Your task to perform on an android device: toggle improve location accuracy Image 0: 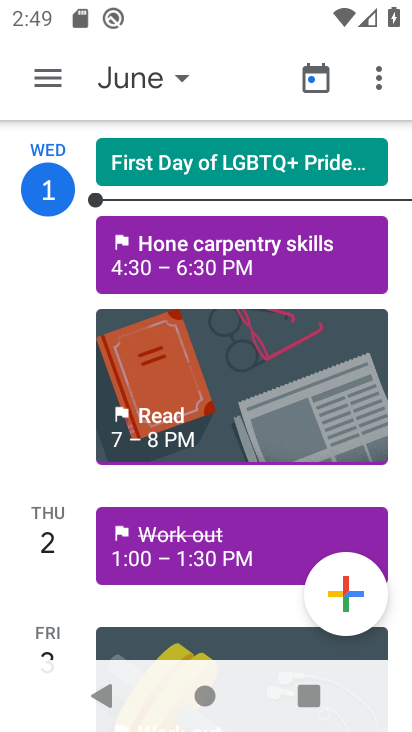
Step 0: press home button
Your task to perform on an android device: toggle improve location accuracy Image 1: 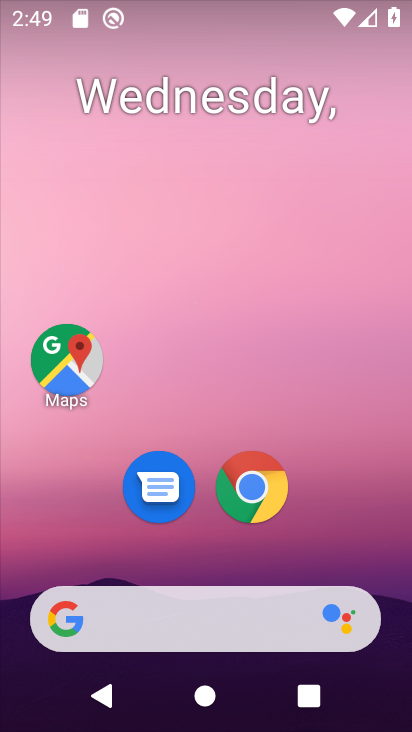
Step 1: click (66, 363)
Your task to perform on an android device: toggle improve location accuracy Image 2: 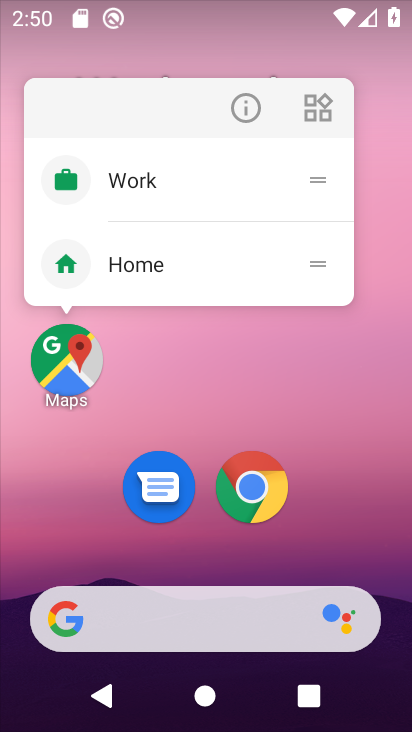
Step 2: press home button
Your task to perform on an android device: toggle improve location accuracy Image 3: 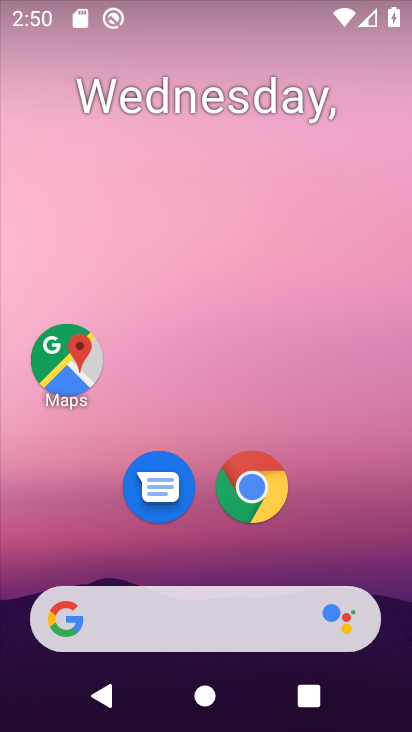
Step 3: click (57, 365)
Your task to perform on an android device: toggle improve location accuracy Image 4: 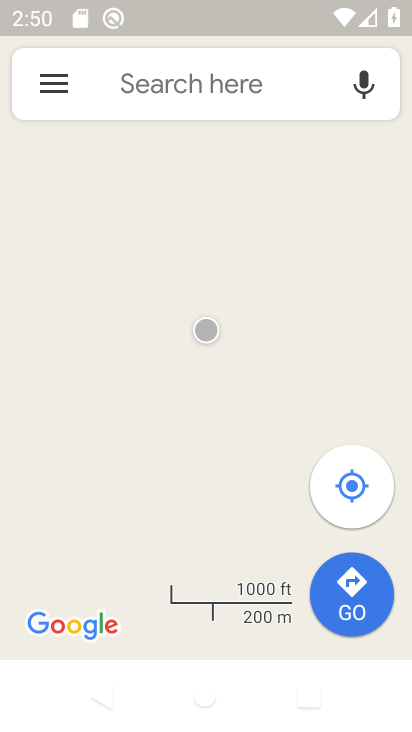
Step 4: click (45, 81)
Your task to perform on an android device: toggle improve location accuracy Image 5: 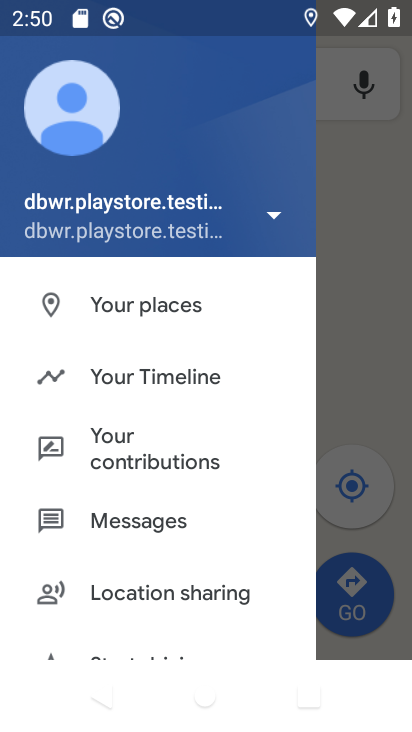
Step 5: drag from (207, 579) to (223, 30)
Your task to perform on an android device: toggle improve location accuracy Image 6: 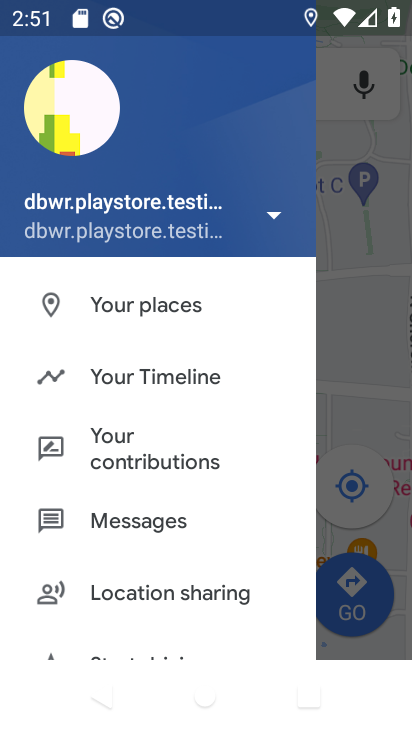
Step 6: drag from (196, 613) to (225, 86)
Your task to perform on an android device: toggle improve location accuracy Image 7: 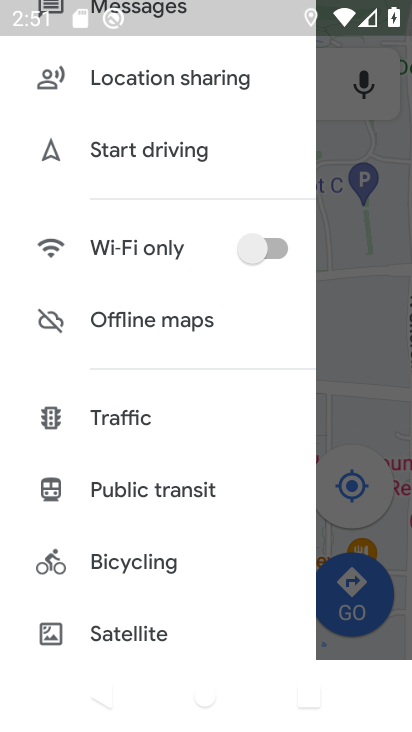
Step 7: drag from (165, 637) to (202, 25)
Your task to perform on an android device: toggle improve location accuracy Image 8: 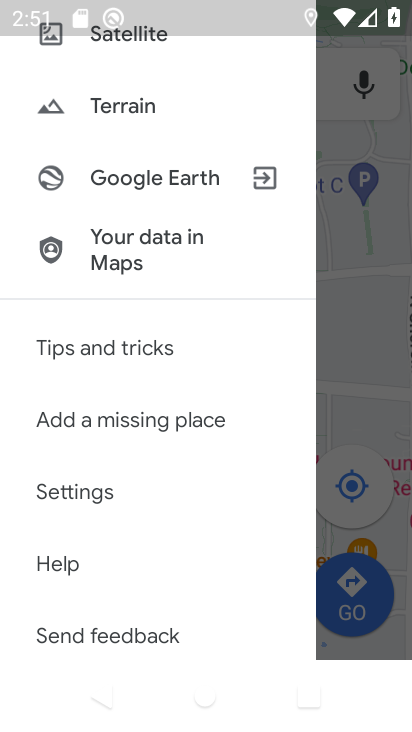
Step 8: click (114, 495)
Your task to perform on an android device: toggle improve location accuracy Image 9: 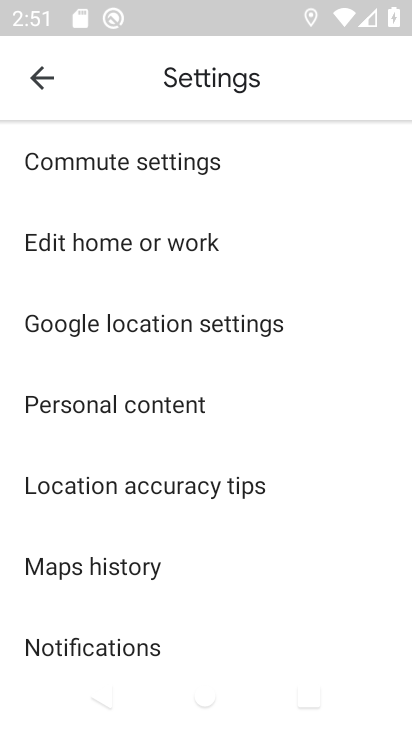
Step 9: click (162, 325)
Your task to perform on an android device: toggle improve location accuracy Image 10: 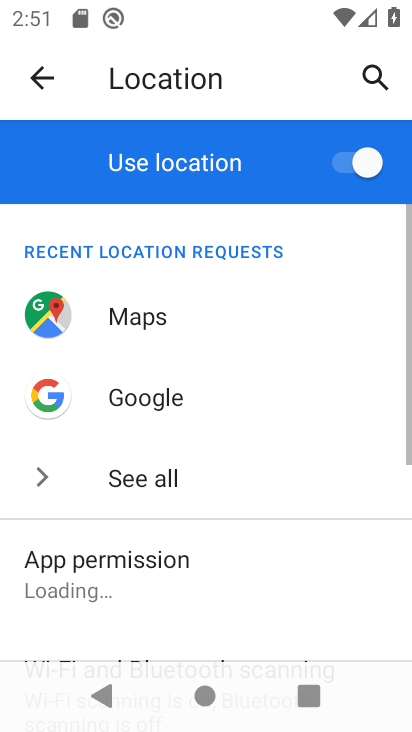
Step 10: drag from (270, 611) to (277, 92)
Your task to perform on an android device: toggle improve location accuracy Image 11: 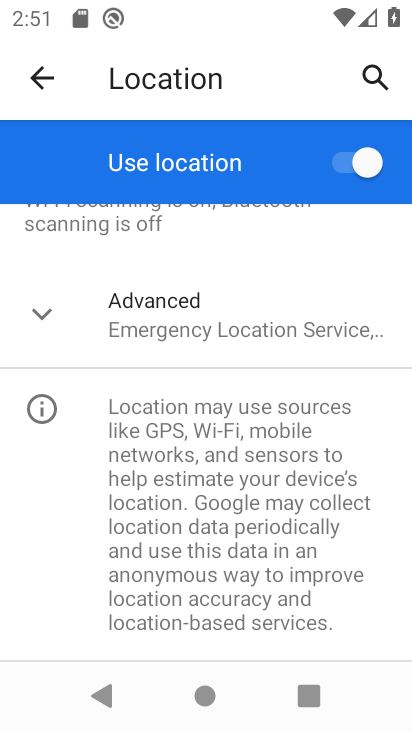
Step 11: click (345, 328)
Your task to perform on an android device: toggle improve location accuracy Image 12: 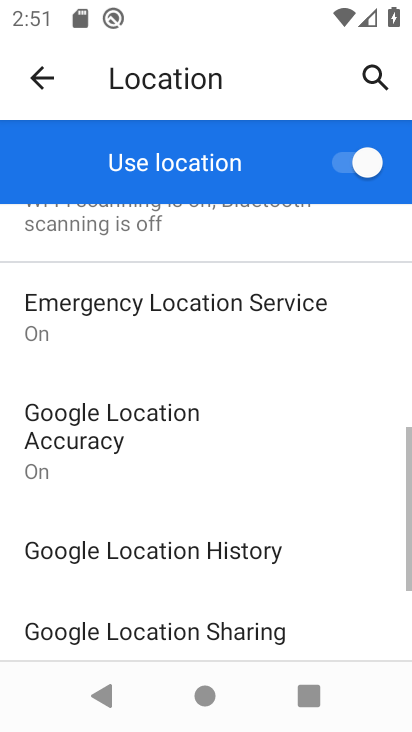
Step 12: drag from (257, 595) to (297, 58)
Your task to perform on an android device: toggle improve location accuracy Image 13: 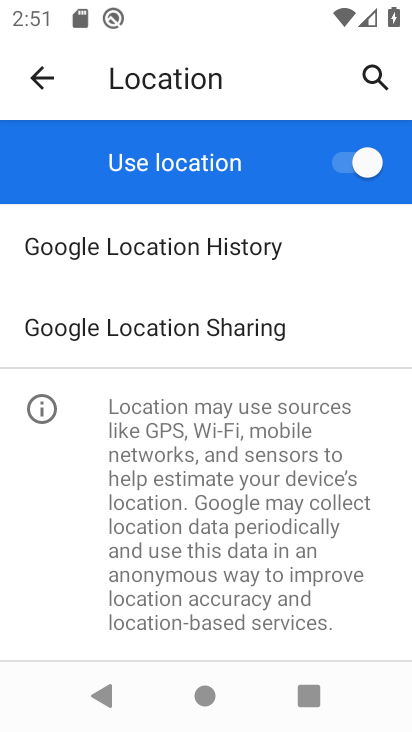
Step 13: drag from (354, 265) to (346, 606)
Your task to perform on an android device: toggle improve location accuracy Image 14: 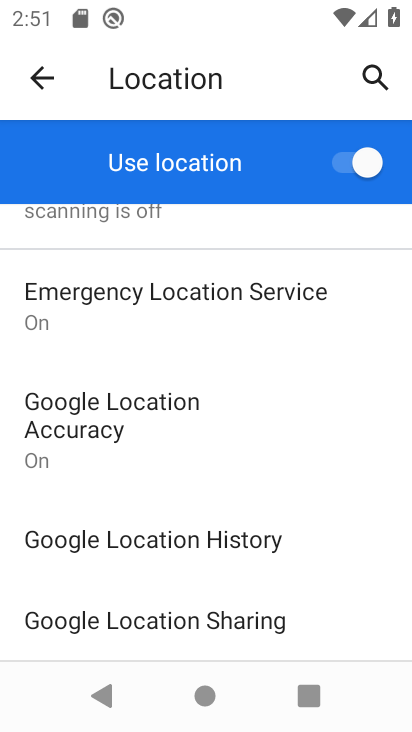
Step 14: click (101, 417)
Your task to perform on an android device: toggle improve location accuracy Image 15: 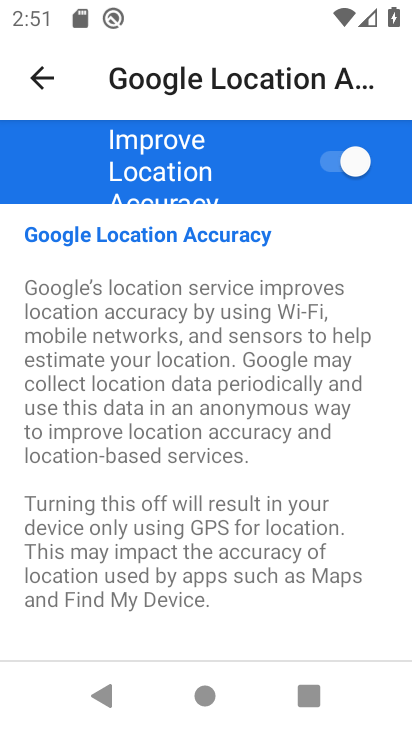
Step 15: click (345, 160)
Your task to perform on an android device: toggle improve location accuracy Image 16: 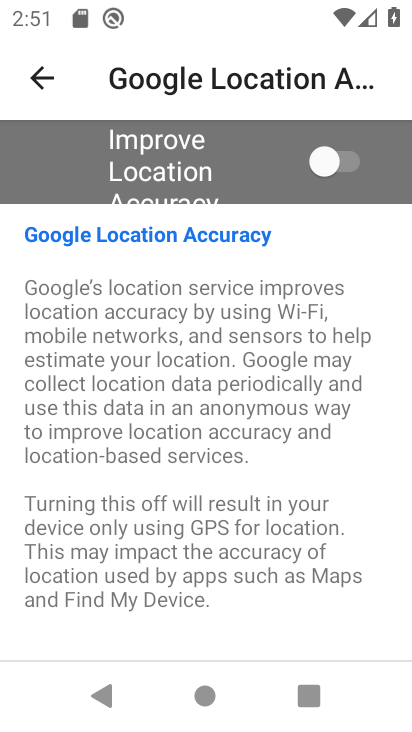
Step 16: task complete